Your task to perform on an android device: add a contact in the contacts app Image 0: 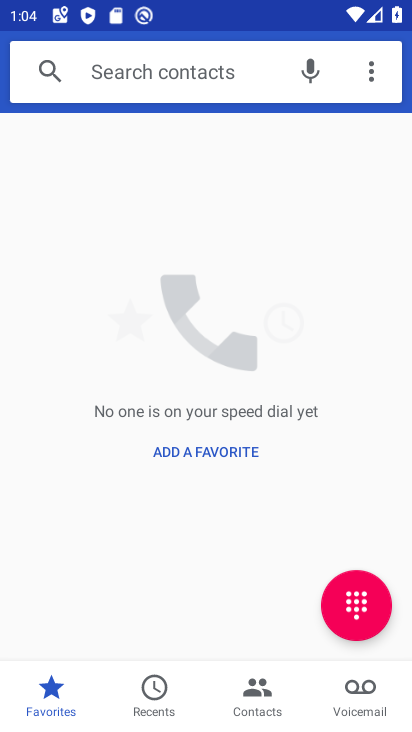
Step 0: press home button
Your task to perform on an android device: add a contact in the contacts app Image 1: 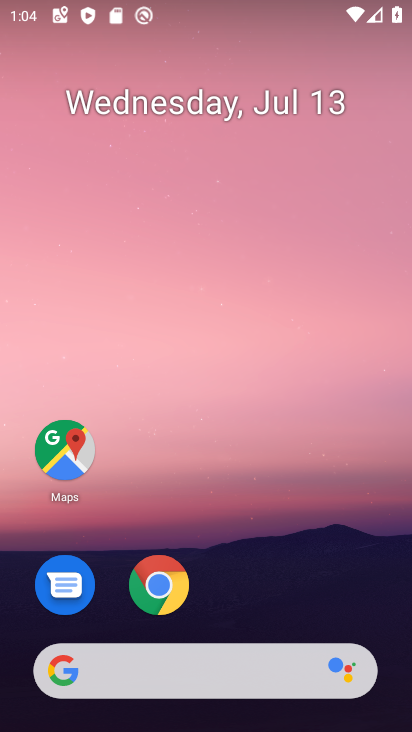
Step 1: drag from (208, 666) to (286, 183)
Your task to perform on an android device: add a contact in the contacts app Image 2: 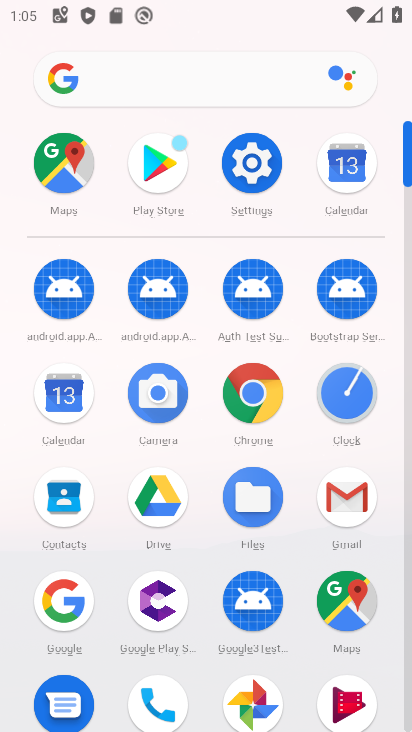
Step 2: click (56, 495)
Your task to perform on an android device: add a contact in the contacts app Image 3: 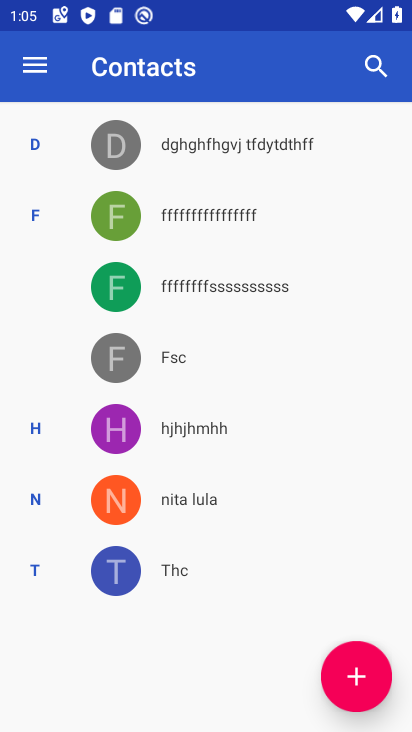
Step 3: click (354, 654)
Your task to perform on an android device: add a contact in the contacts app Image 4: 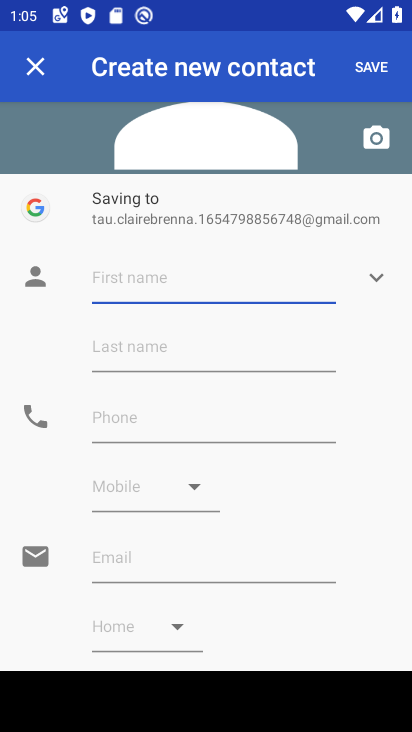
Step 4: type "byutgfh"
Your task to perform on an android device: add a contact in the contacts app Image 5: 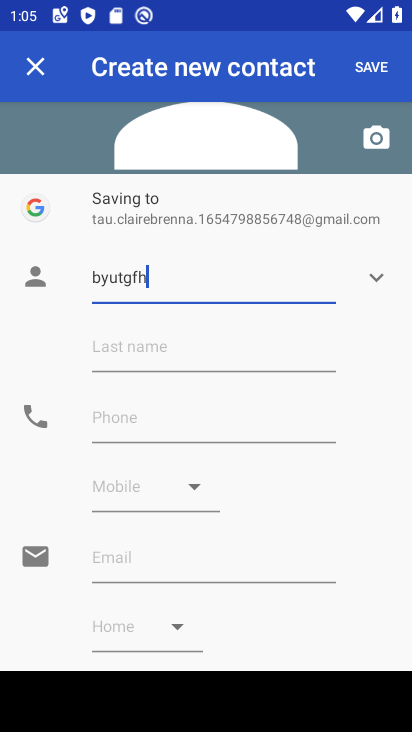
Step 5: click (197, 416)
Your task to perform on an android device: add a contact in the contacts app Image 6: 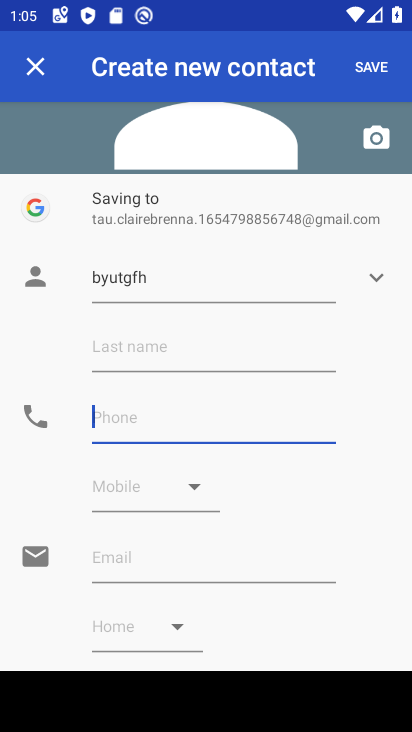
Step 6: type "98765768"
Your task to perform on an android device: add a contact in the contacts app Image 7: 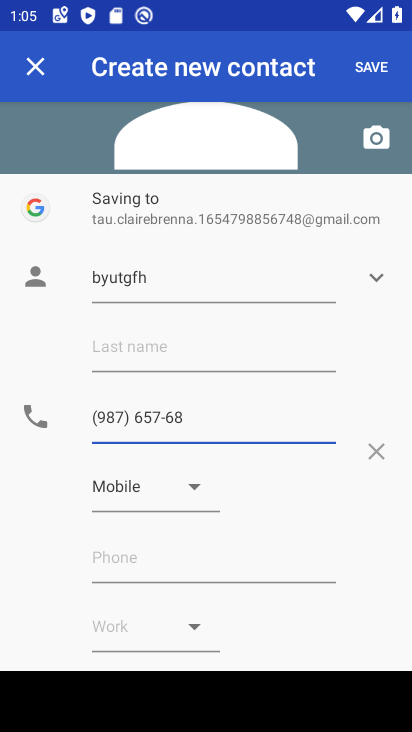
Step 7: click (372, 73)
Your task to perform on an android device: add a contact in the contacts app Image 8: 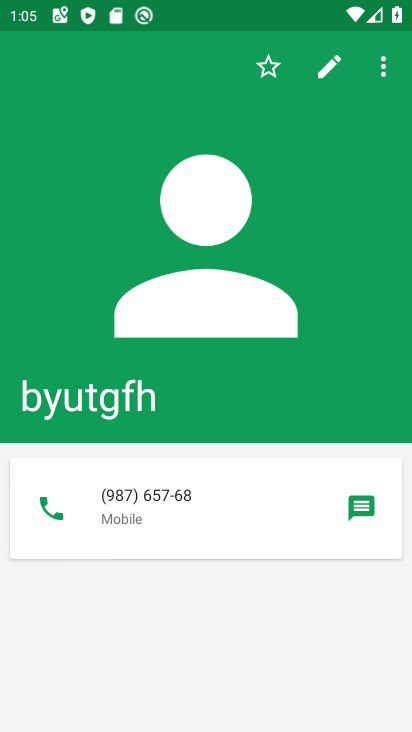
Step 8: task complete